Your task to perform on an android device: Go to battery settings Image 0: 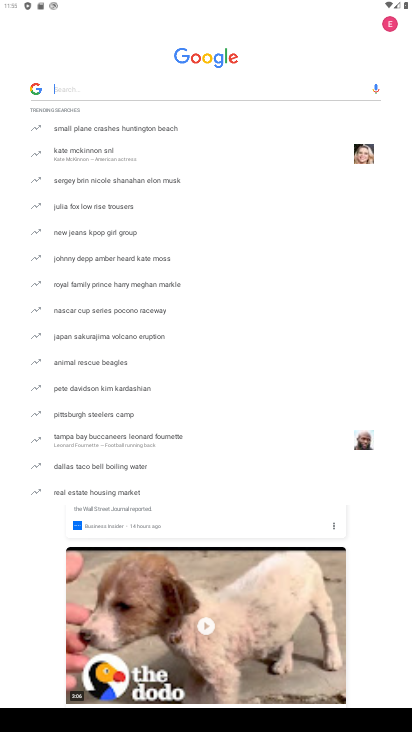
Step 0: press home button
Your task to perform on an android device: Go to battery settings Image 1: 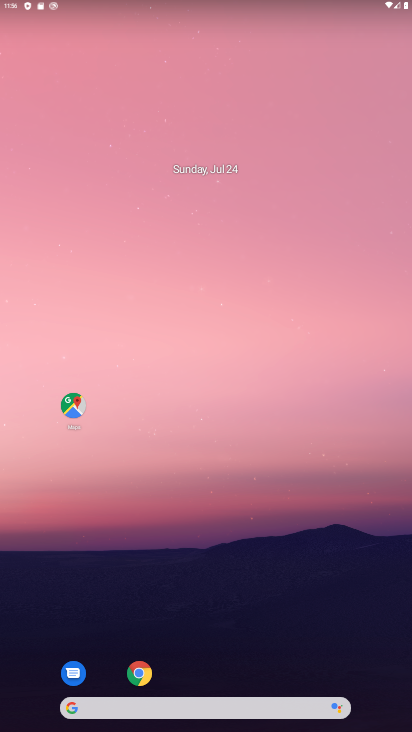
Step 1: drag from (101, 709) to (207, 47)
Your task to perform on an android device: Go to battery settings Image 2: 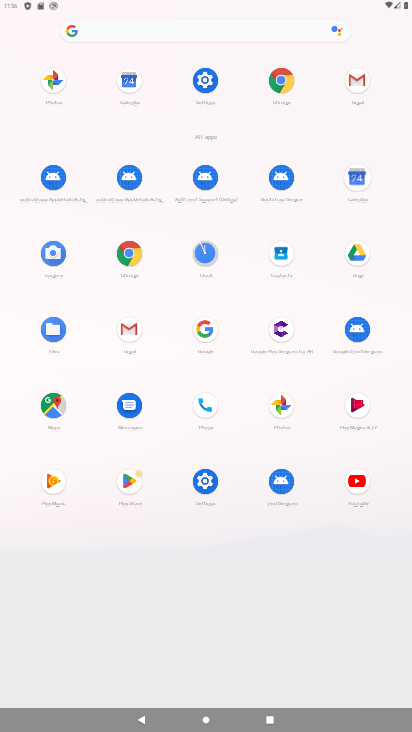
Step 2: click (210, 84)
Your task to perform on an android device: Go to battery settings Image 3: 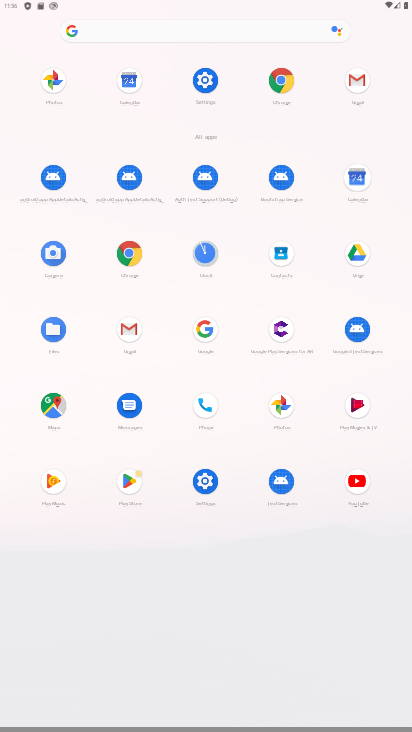
Step 3: click (210, 84)
Your task to perform on an android device: Go to battery settings Image 4: 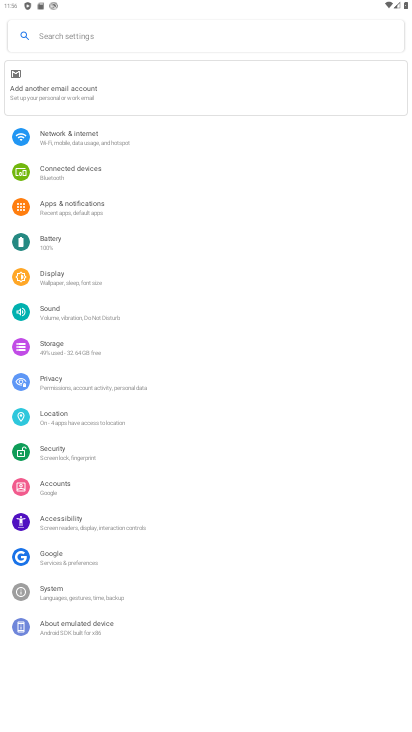
Step 4: click (76, 238)
Your task to perform on an android device: Go to battery settings Image 5: 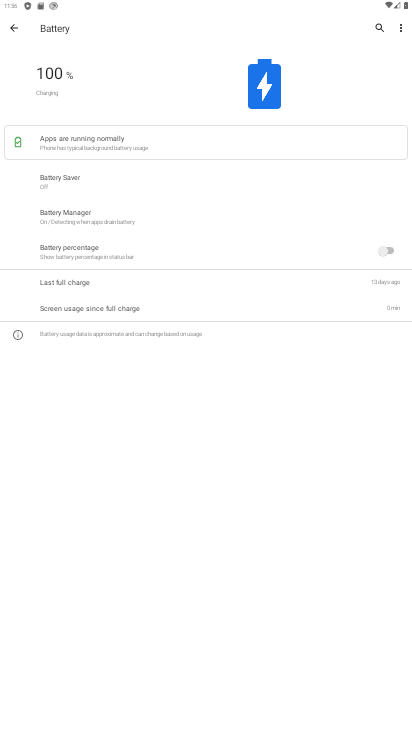
Step 5: task complete